Your task to perform on an android device: Open battery settings Image 0: 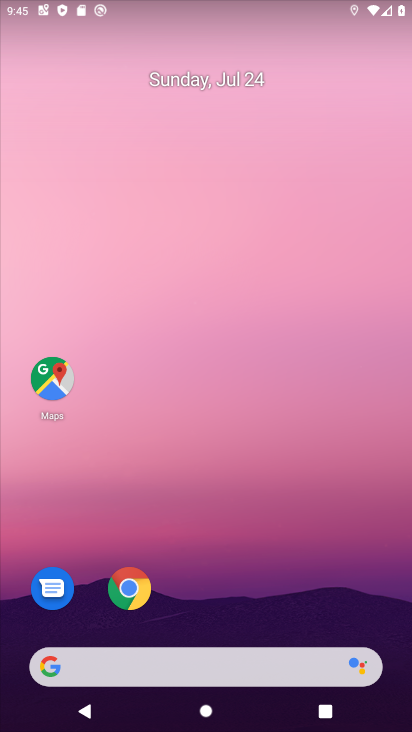
Step 0: press back button
Your task to perform on an android device: Open battery settings Image 1: 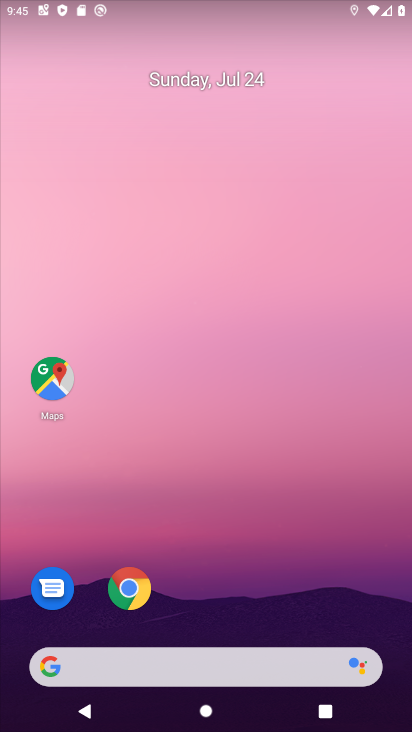
Step 1: press home button
Your task to perform on an android device: Open battery settings Image 2: 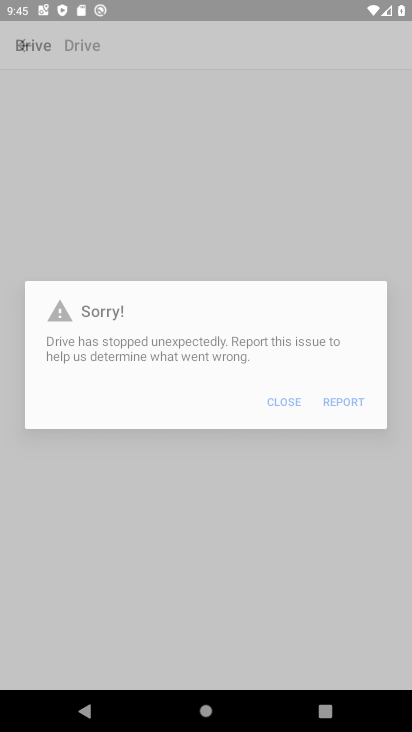
Step 2: click (218, 44)
Your task to perform on an android device: Open battery settings Image 3: 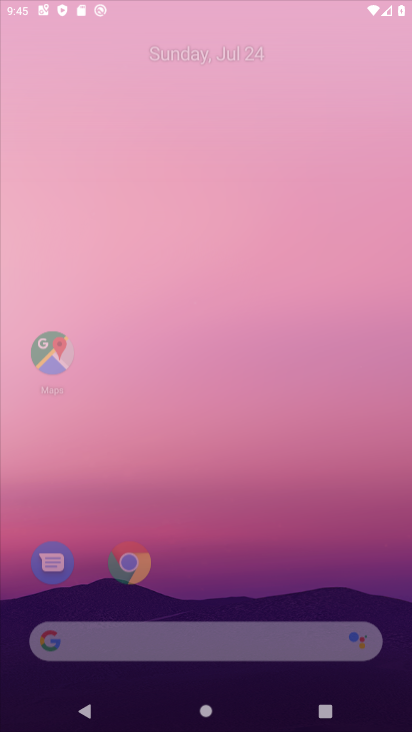
Step 3: click (175, 0)
Your task to perform on an android device: Open battery settings Image 4: 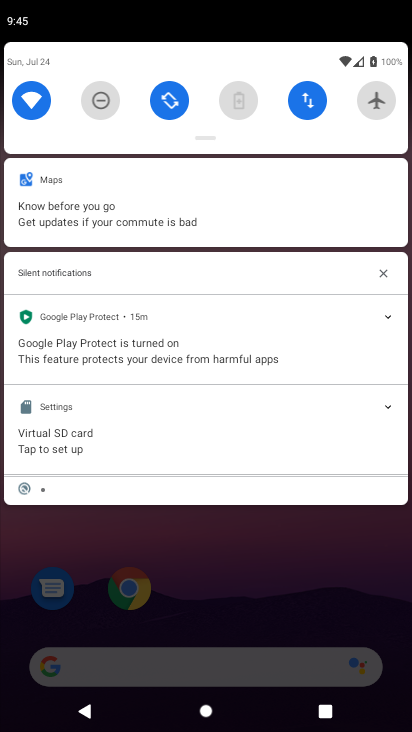
Step 4: drag from (242, 436) to (223, 126)
Your task to perform on an android device: Open battery settings Image 5: 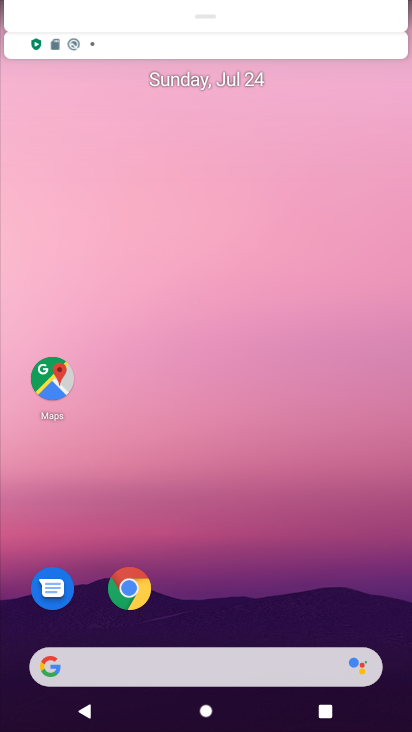
Step 5: drag from (232, 552) to (202, 153)
Your task to perform on an android device: Open battery settings Image 6: 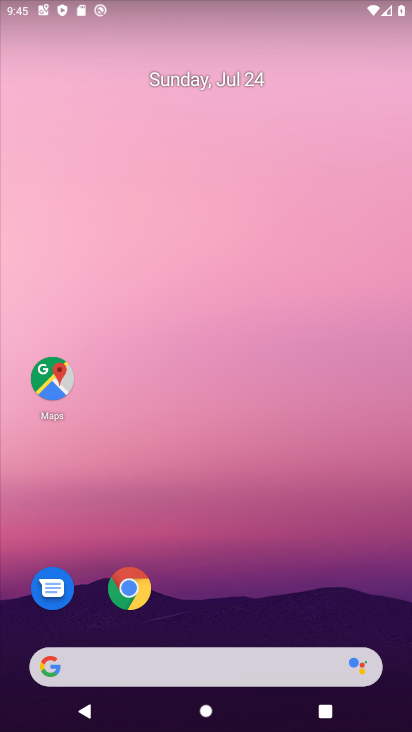
Step 6: drag from (256, 548) to (185, 35)
Your task to perform on an android device: Open battery settings Image 7: 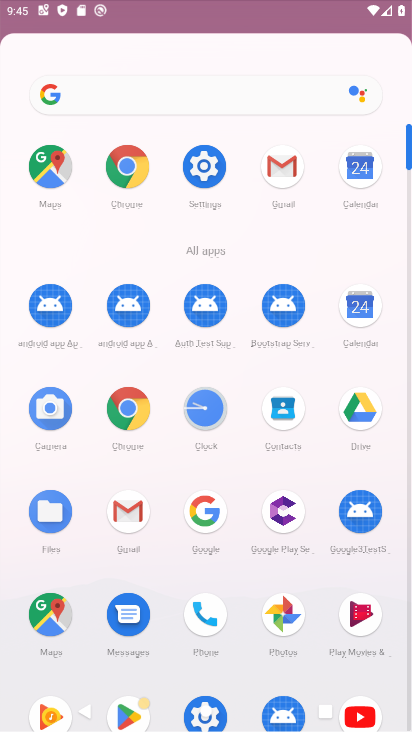
Step 7: click (142, 398)
Your task to perform on an android device: Open battery settings Image 8: 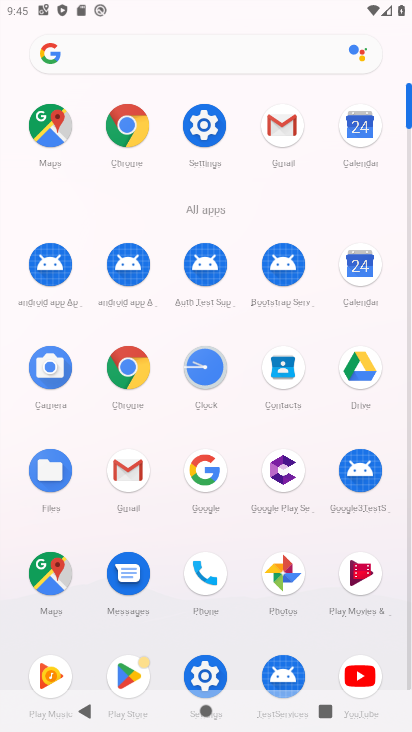
Step 8: drag from (177, 352) to (191, 222)
Your task to perform on an android device: Open battery settings Image 9: 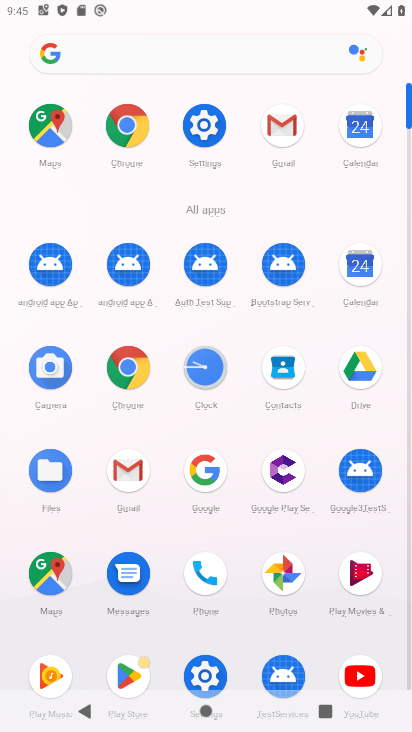
Step 9: click (203, 130)
Your task to perform on an android device: Open battery settings Image 10: 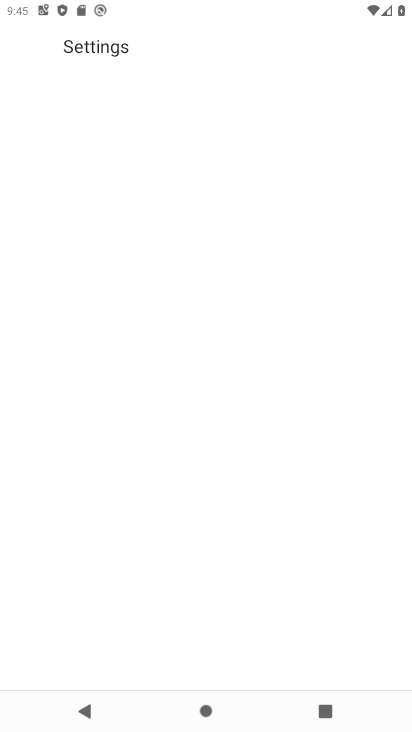
Step 10: click (224, 131)
Your task to perform on an android device: Open battery settings Image 11: 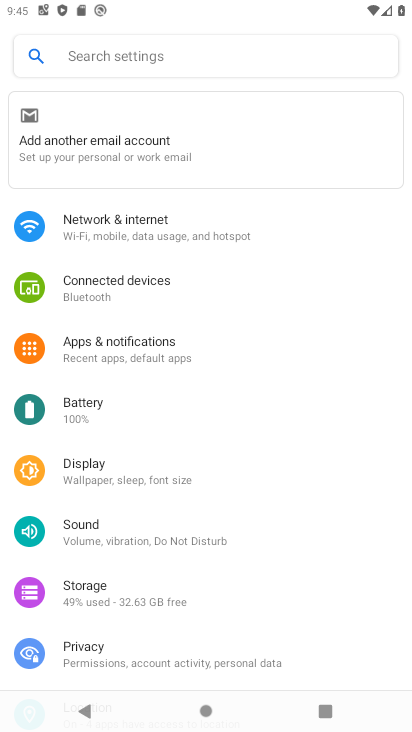
Step 11: click (99, 404)
Your task to perform on an android device: Open battery settings Image 12: 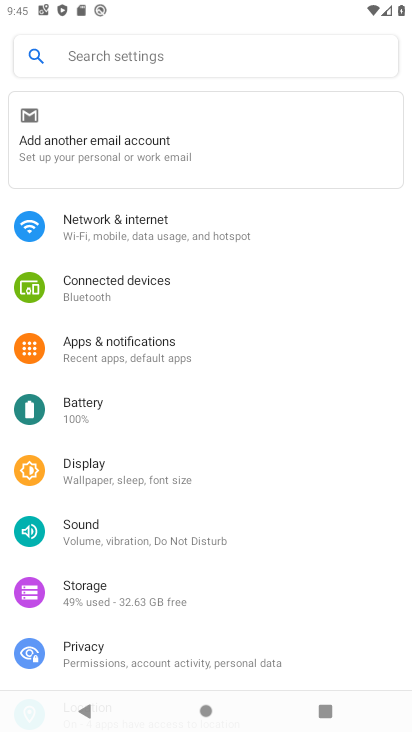
Step 12: click (100, 405)
Your task to perform on an android device: Open battery settings Image 13: 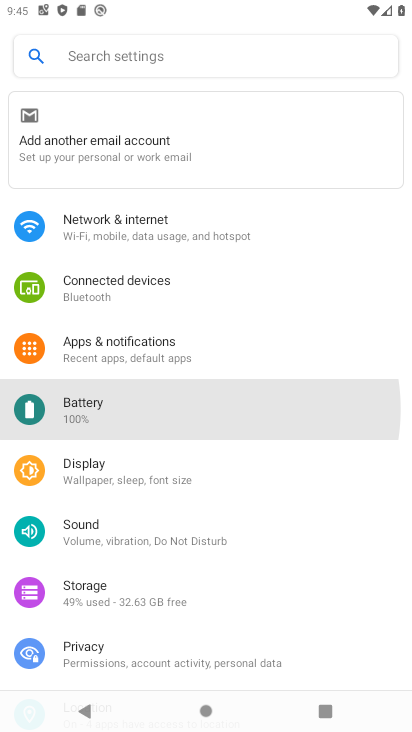
Step 13: click (101, 407)
Your task to perform on an android device: Open battery settings Image 14: 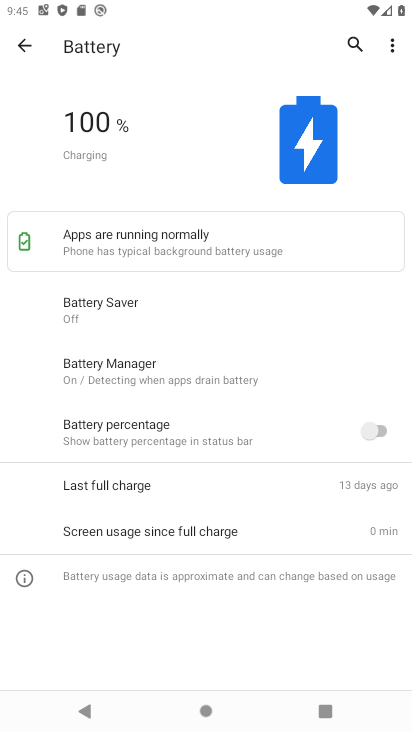
Step 14: task complete